Your task to perform on an android device: Search for pizza restaurants on Maps Image 0: 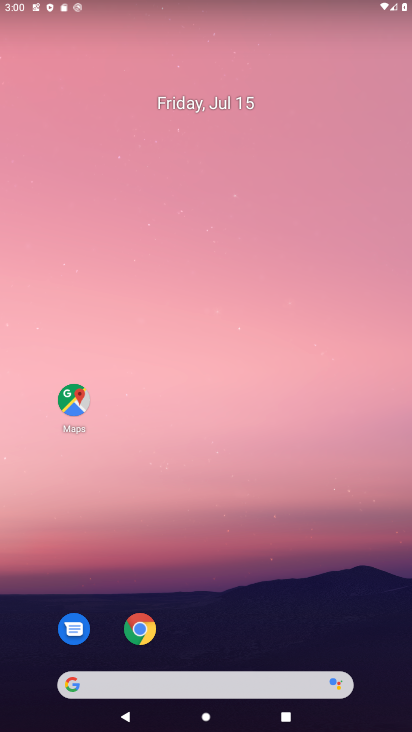
Step 0: drag from (245, 360) to (218, 190)
Your task to perform on an android device: Search for pizza restaurants on Maps Image 1: 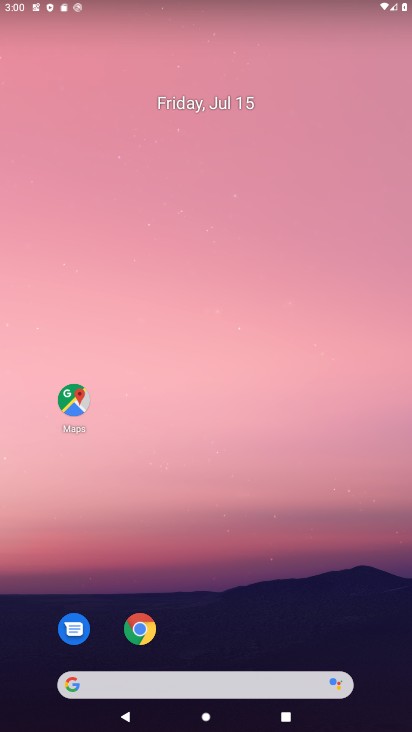
Step 1: drag from (224, 632) to (177, 99)
Your task to perform on an android device: Search for pizza restaurants on Maps Image 2: 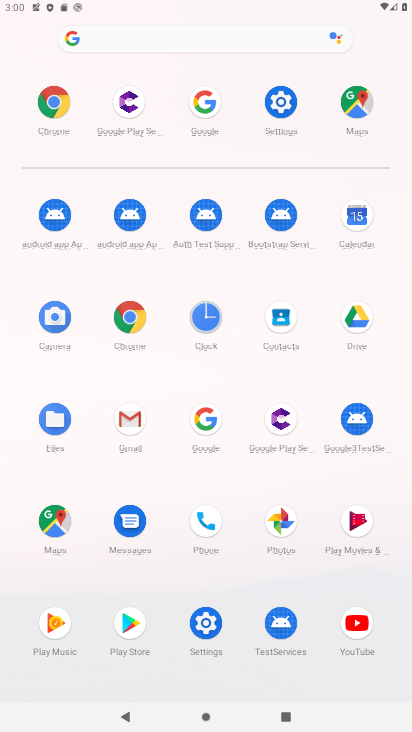
Step 2: click (63, 516)
Your task to perform on an android device: Search for pizza restaurants on Maps Image 3: 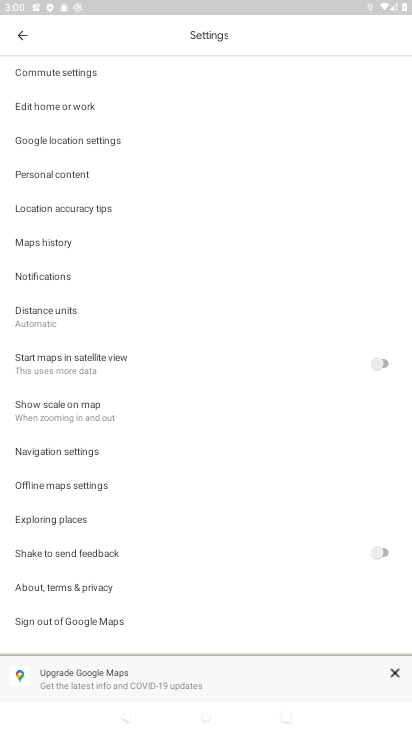
Step 3: click (21, 36)
Your task to perform on an android device: Search for pizza restaurants on Maps Image 4: 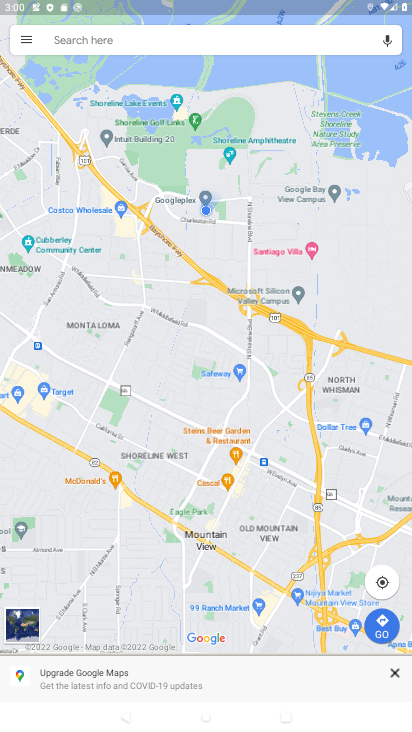
Step 4: click (157, 32)
Your task to perform on an android device: Search for pizza restaurants on Maps Image 5: 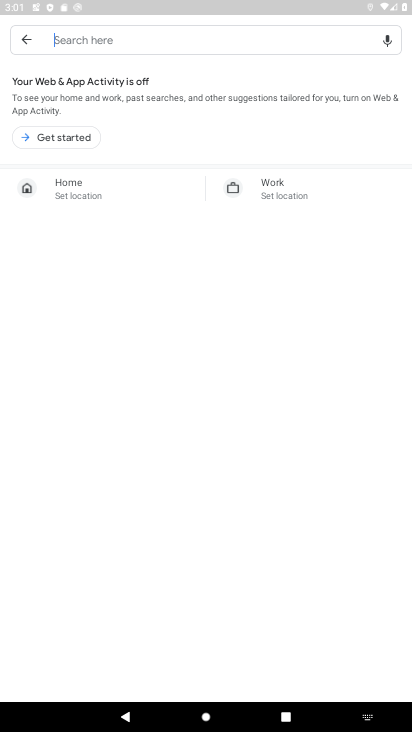
Step 5: type "pizza restaurants"
Your task to perform on an android device: Search for pizza restaurants on Maps Image 6: 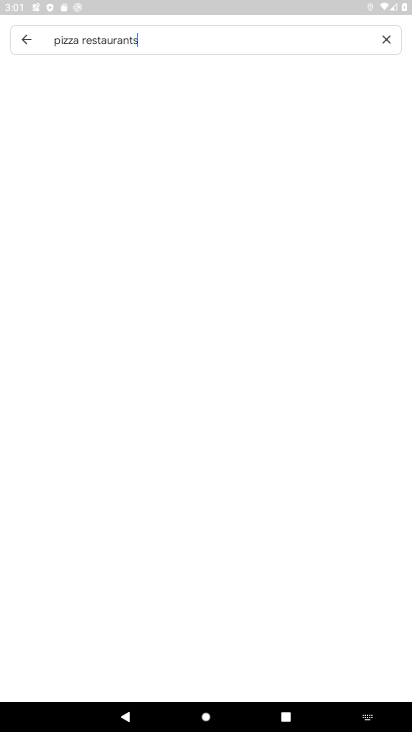
Step 6: type ""
Your task to perform on an android device: Search for pizza restaurants on Maps Image 7: 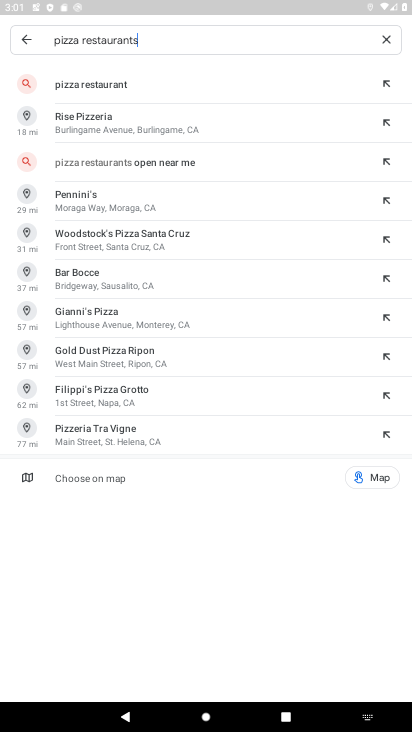
Step 7: click (104, 75)
Your task to perform on an android device: Search for pizza restaurants on Maps Image 8: 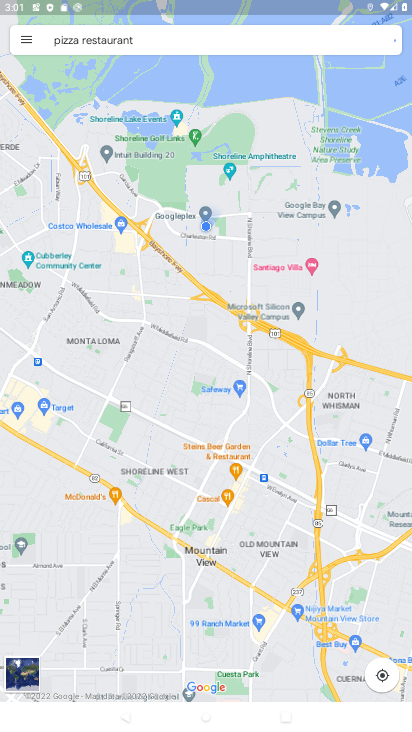
Step 8: task complete